Your task to perform on an android device: install app "Pluto TV - Live TV and Movies" Image 0: 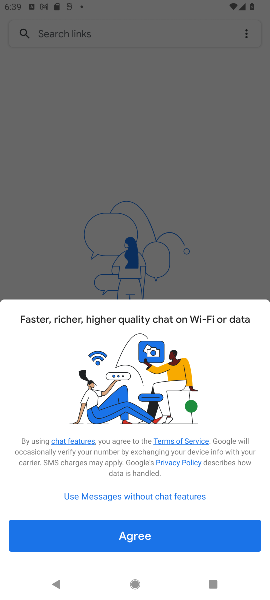
Step 0: press home button
Your task to perform on an android device: install app "Pluto TV - Live TV and Movies" Image 1: 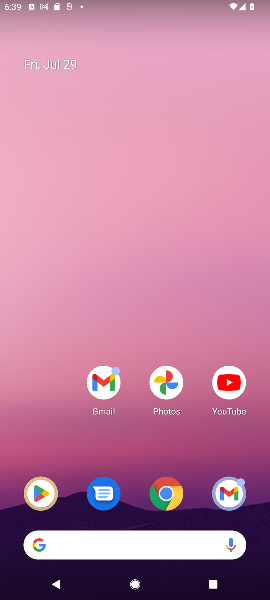
Step 1: drag from (153, 594) to (118, 197)
Your task to perform on an android device: install app "Pluto TV - Live TV and Movies" Image 2: 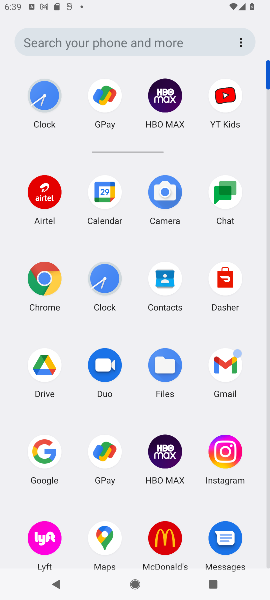
Step 2: drag from (133, 546) to (114, 358)
Your task to perform on an android device: install app "Pluto TV - Live TV and Movies" Image 3: 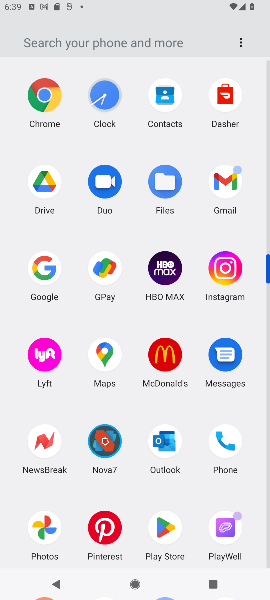
Step 3: click (163, 525)
Your task to perform on an android device: install app "Pluto TV - Live TV and Movies" Image 4: 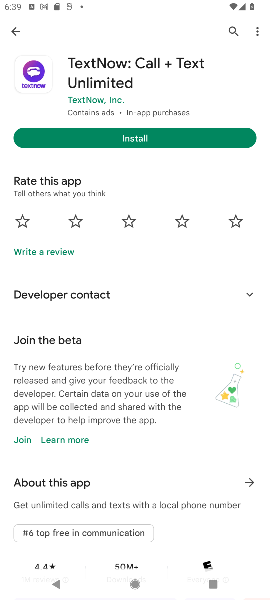
Step 4: click (232, 30)
Your task to perform on an android device: install app "Pluto TV - Live TV and Movies" Image 5: 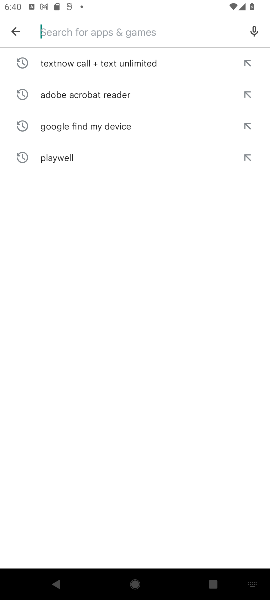
Step 5: type "Pluto TV - Live TV and Movies"
Your task to perform on an android device: install app "Pluto TV - Live TV and Movies" Image 6: 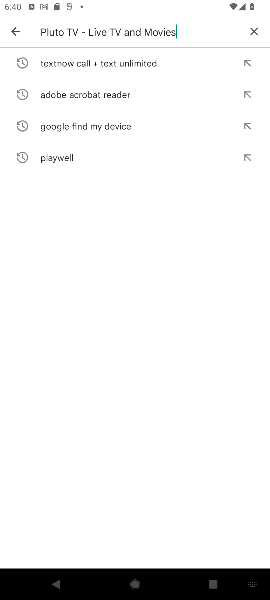
Step 6: type ""
Your task to perform on an android device: install app "Pluto TV - Live TV and Movies" Image 7: 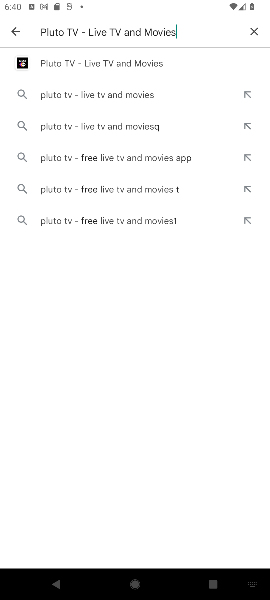
Step 7: click (115, 63)
Your task to perform on an android device: install app "Pluto TV - Live TV and Movies" Image 8: 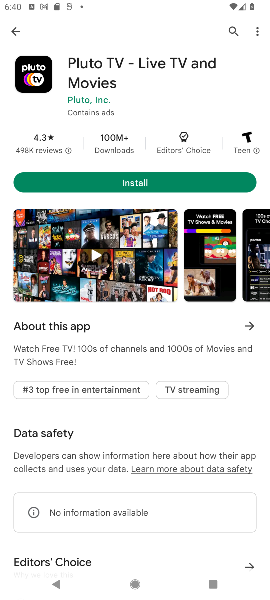
Step 8: click (140, 185)
Your task to perform on an android device: install app "Pluto TV - Live TV and Movies" Image 9: 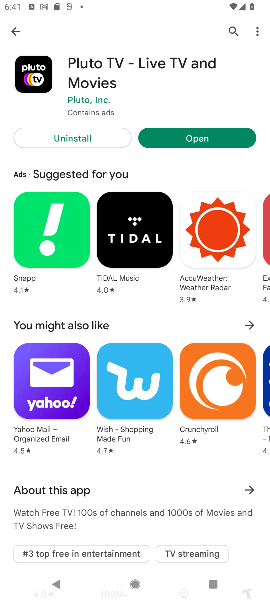
Step 9: task complete